Your task to perform on an android device: turn on the 12-hour format for clock Image 0: 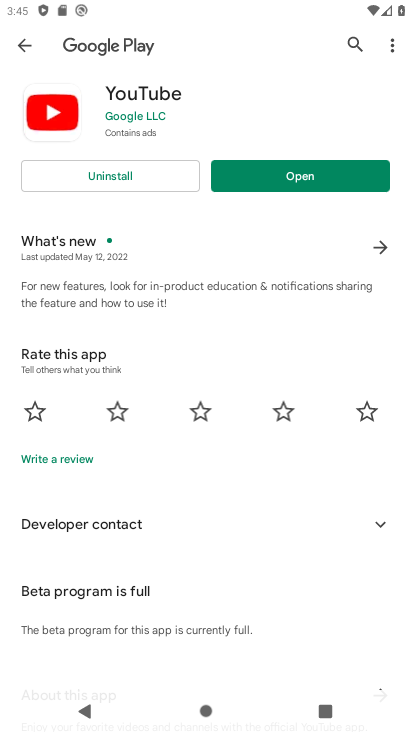
Step 0: press home button
Your task to perform on an android device: turn on the 12-hour format for clock Image 1: 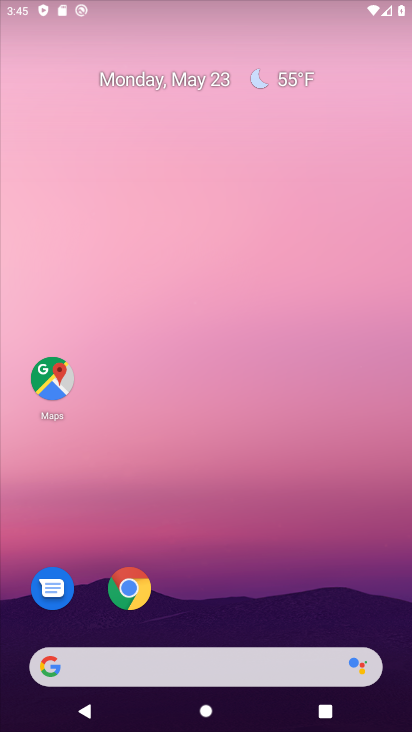
Step 1: drag from (189, 608) to (223, 75)
Your task to perform on an android device: turn on the 12-hour format for clock Image 2: 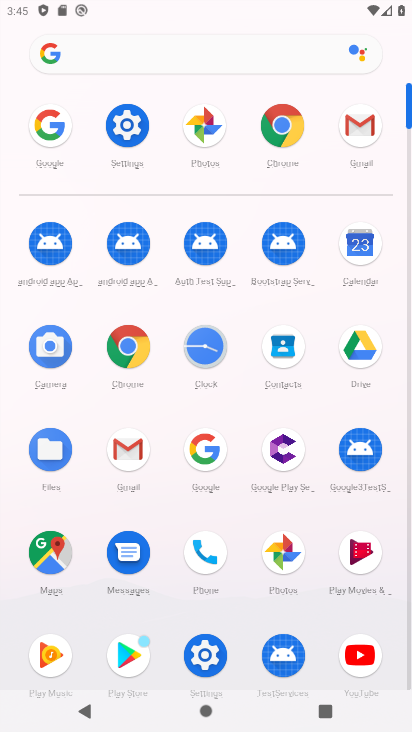
Step 2: click (196, 348)
Your task to perform on an android device: turn on the 12-hour format for clock Image 3: 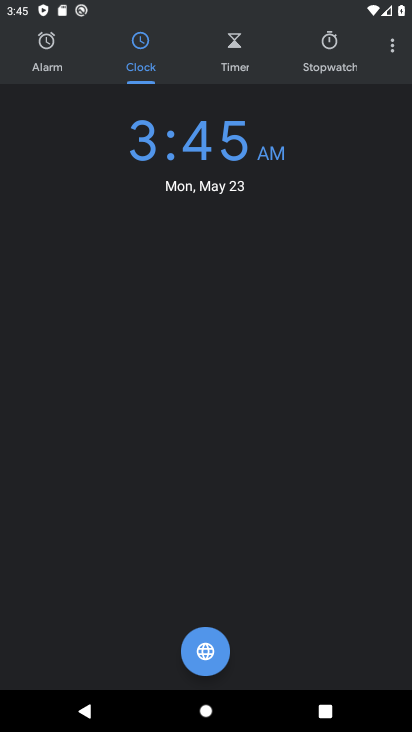
Step 3: click (384, 45)
Your task to perform on an android device: turn on the 12-hour format for clock Image 4: 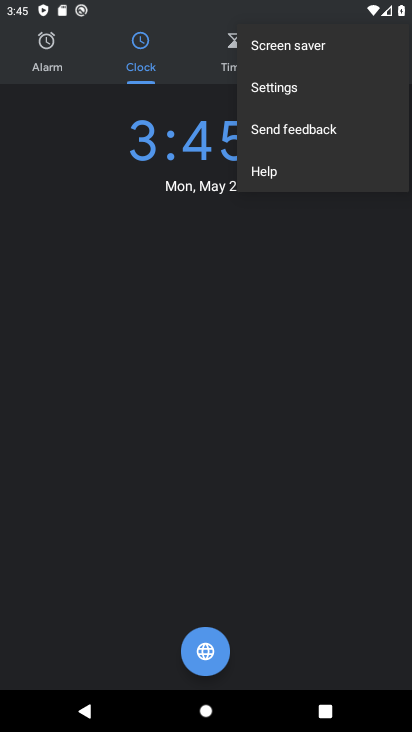
Step 4: click (284, 93)
Your task to perform on an android device: turn on the 12-hour format for clock Image 5: 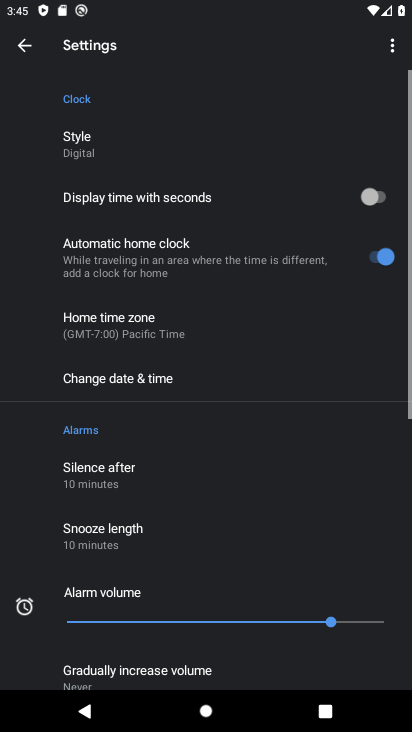
Step 5: click (165, 369)
Your task to perform on an android device: turn on the 12-hour format for clock Image 6: 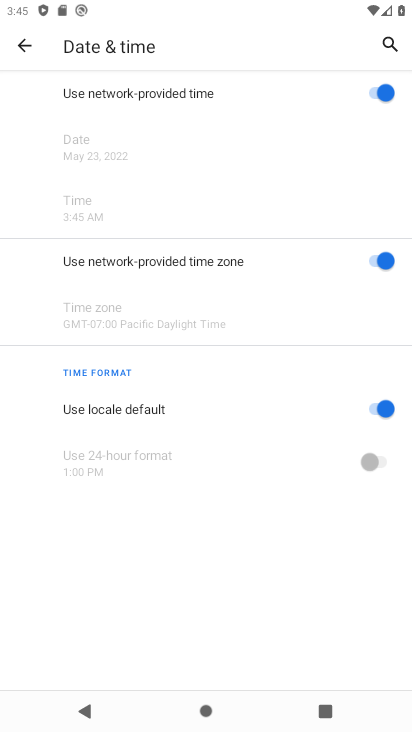
Step 6: task complete